Your task to perform on an android device: Go to privacy settings Image 0: 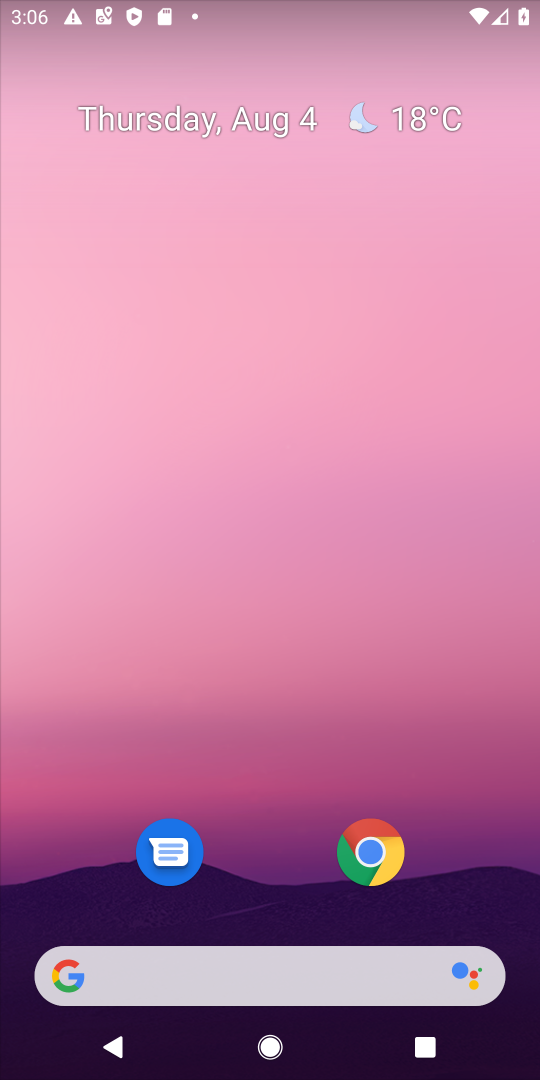
Step 0: drag from (237, 645) to (283, 223)
Your task to perform on an android device: Go to privacy settings Image 1: 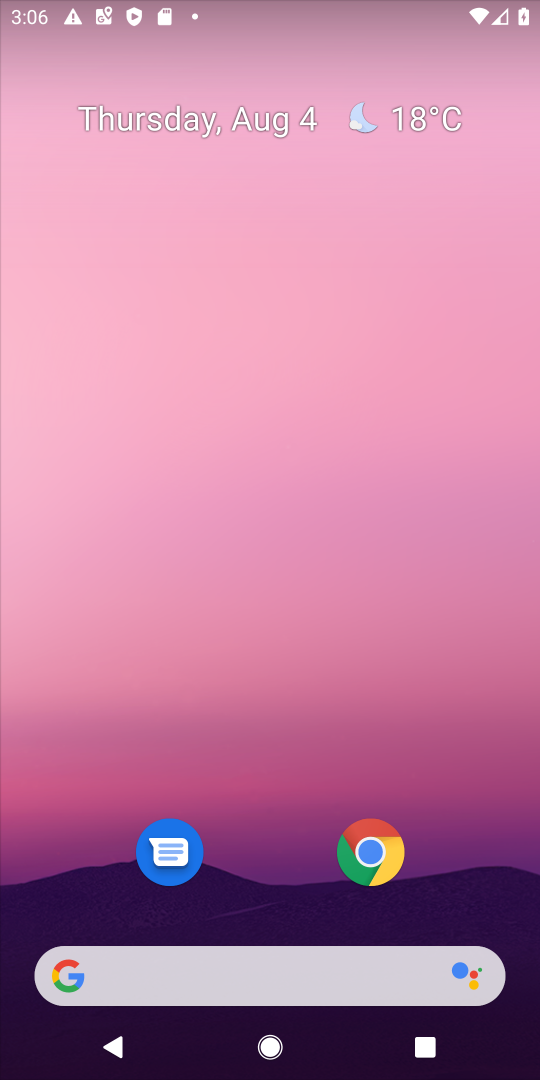
Step 1: drag from (238, 784) to (321, 132)
Your task to perform on an android device: Go to privacy settings Image 2: 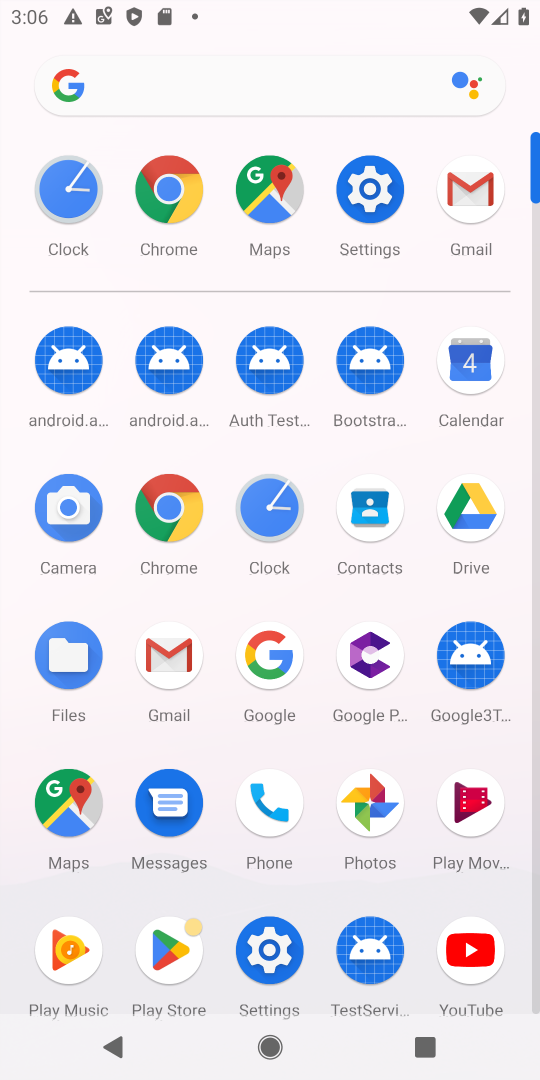
Step 2: click (393, 207)
Your task to perform on an android device: Go to privacy settings Image 3: 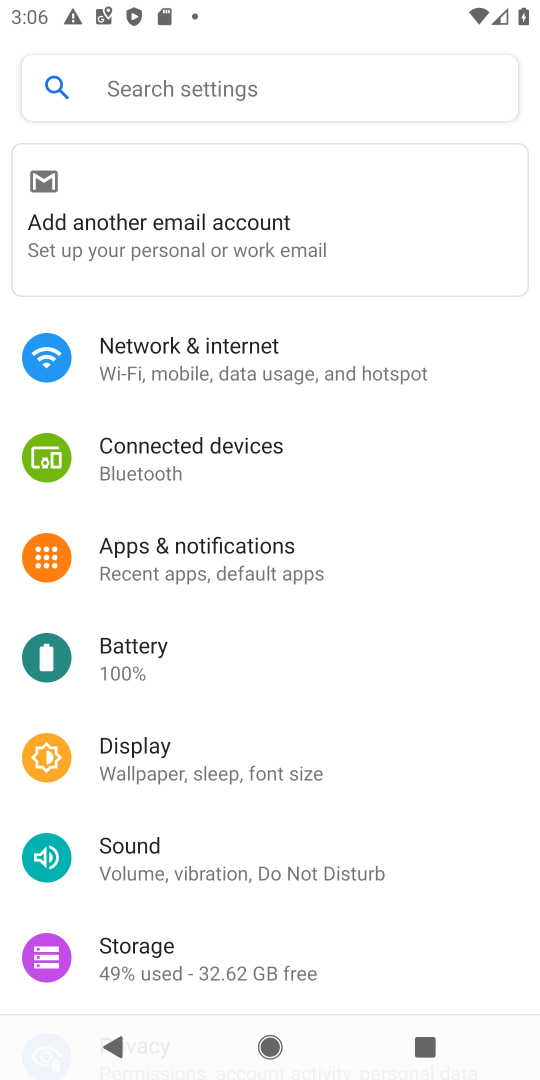
Step 3: drag from (240, 928) to (319, 167)
Your task to perform on an android device: Go to privacy settings Image 4: 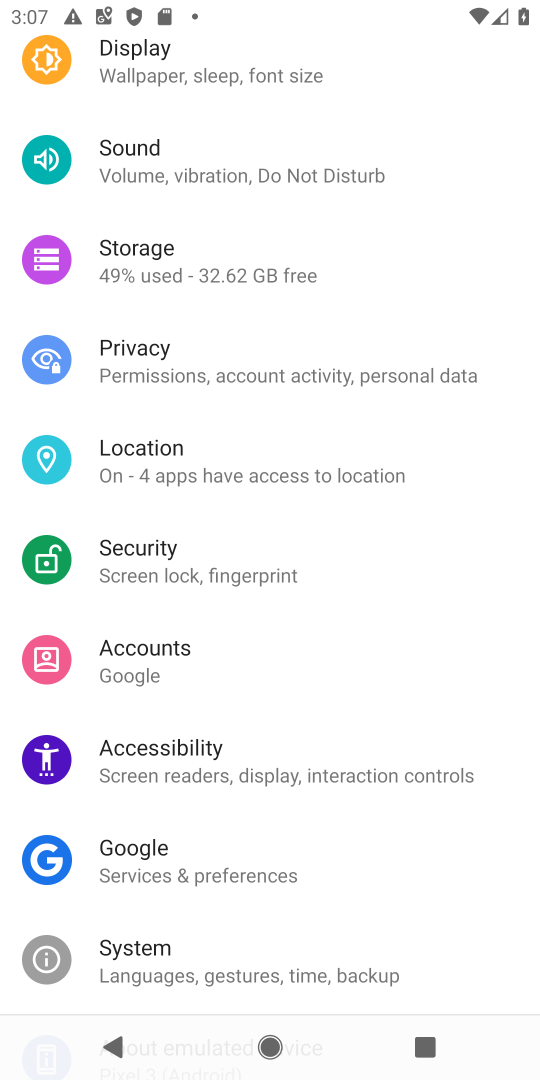
Step 4: click (248, 352)
Your task to perform on an android device: Go to privacy settings Image 5: 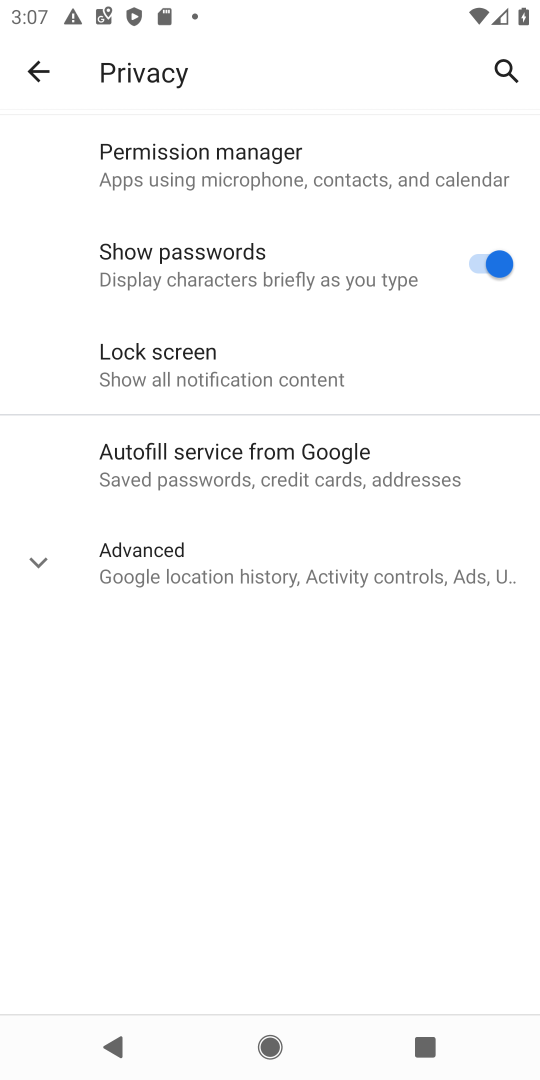
Step 5: task complete